Your task to perform on an android device: Open the phone app and click the voicemail tab. Image 0: 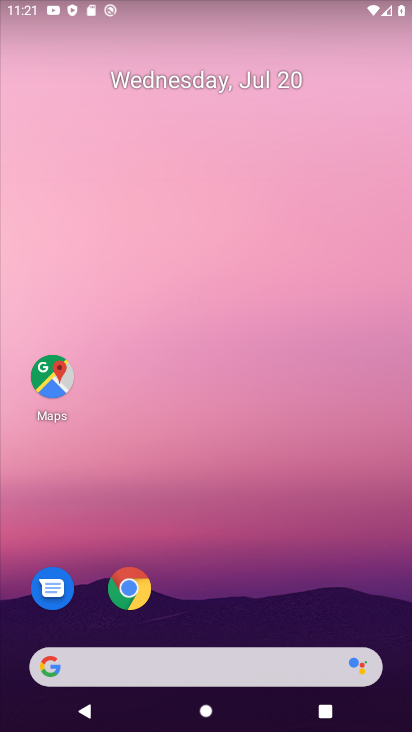
Step 0: press home button
Your task to perform on an android device: Open the phone app and click the voicemail tab. Image 1: 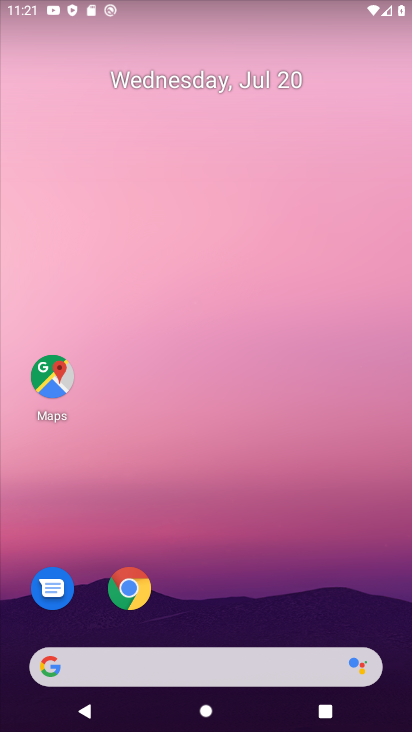
Step 1: drag from (318, 570) to (370, 67)
Your task to perform on an android device: Open the phone app and click the voicemail tab. Image 2: 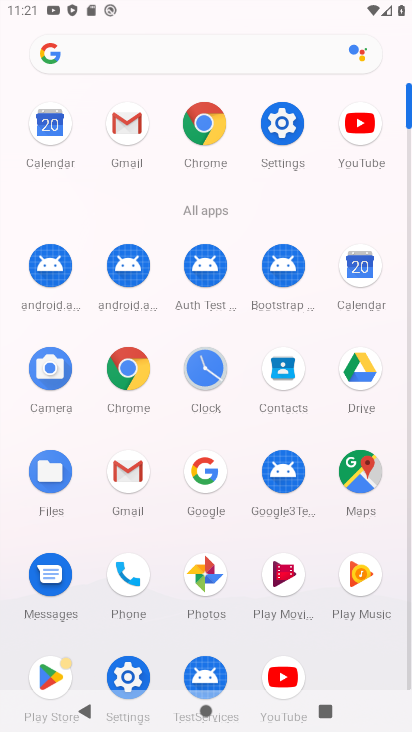
Step 2: click (141, 572)
Your task to perform on an android device: Open the phone app and click the voicemail tab. Image 3: 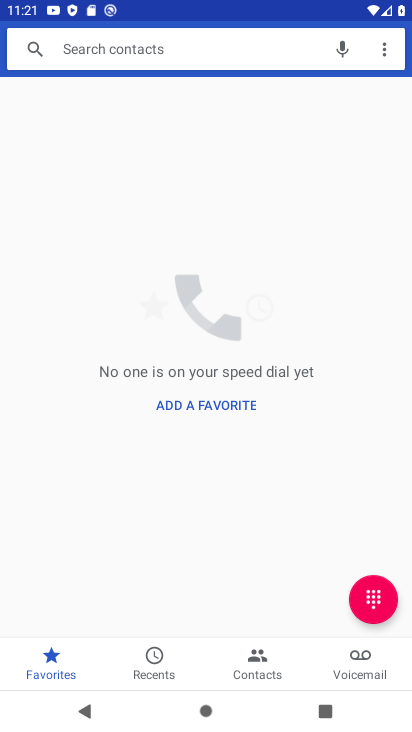
Step 3: click (359, 656)
Your task to perform on an android device: Open the phone app and click the voicemail tab. Image 4: 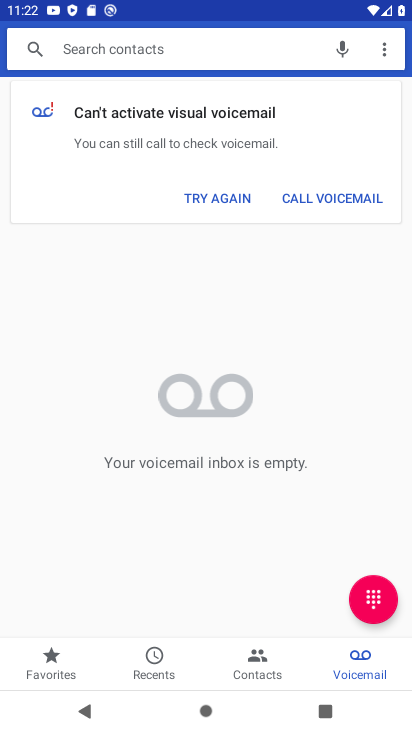
Step 4: task complete